Your task to perform on an android device: turn off data saver in the chrome app Image 0: 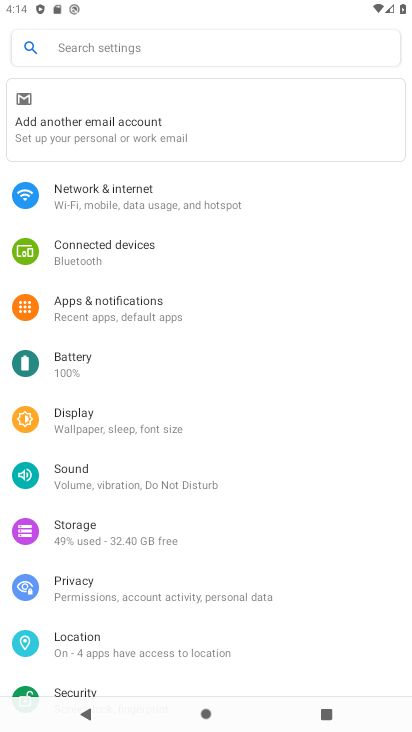
Step 0: press home button
Your task to perform on an android device: turn off data saver in the chrome app Image 1: 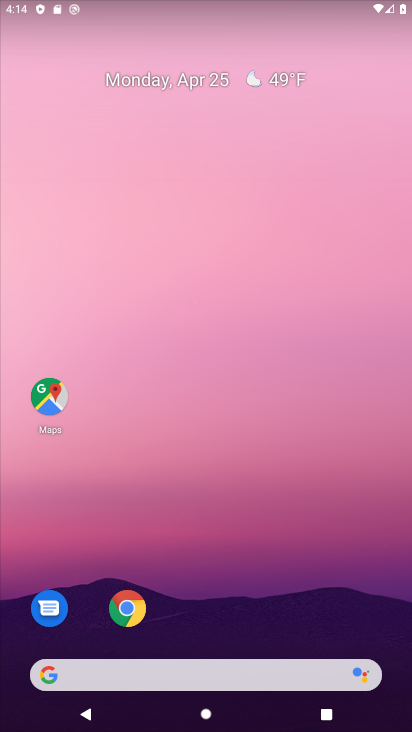
Step 1: click (134, 610)
Your task to perform on an android device: turn off data saver in the chrome app Image 2: 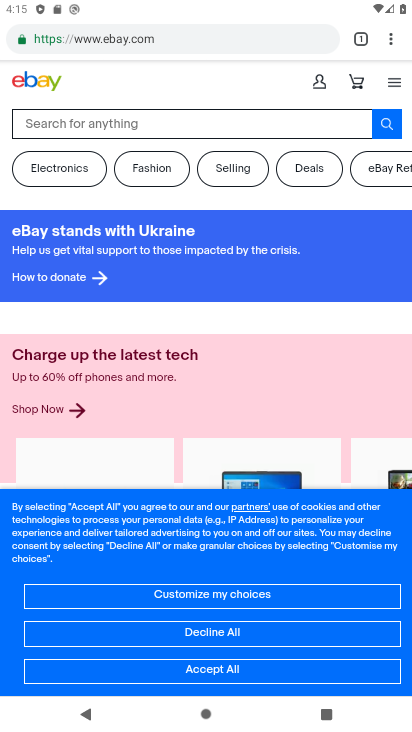
Step 2: click (394, 40)
Your task to perform on an android device: turn off data saver in the chrome app Image 3: 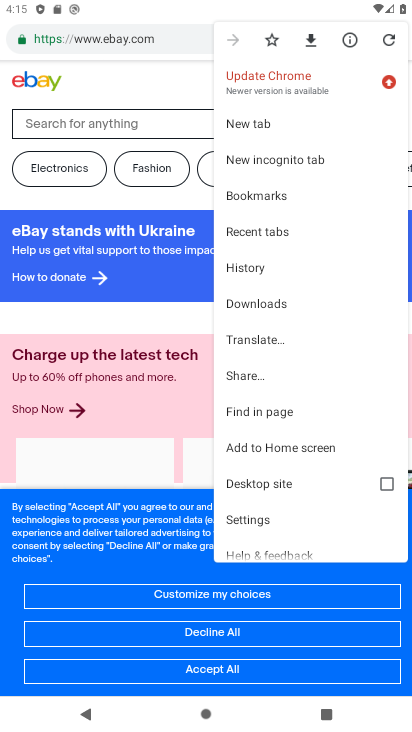
Step 3: click (268, 521)
Your task to perform on an android device: turn off data saver in the chrome app Image 4: 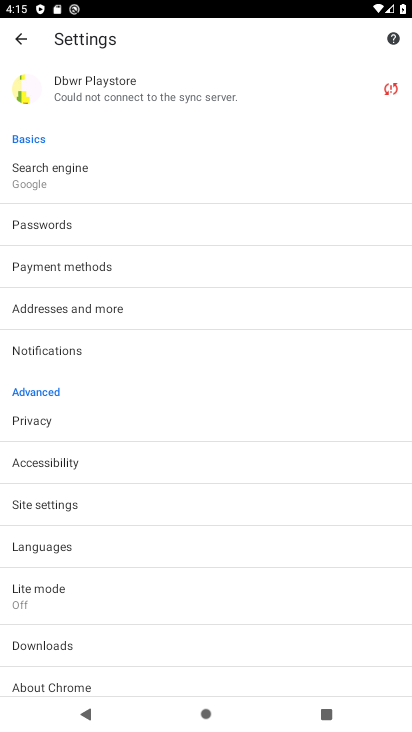
Step 4: click (200, 605)
Your task to perform on an android device: turn off data saver in the chrome app Image 5: 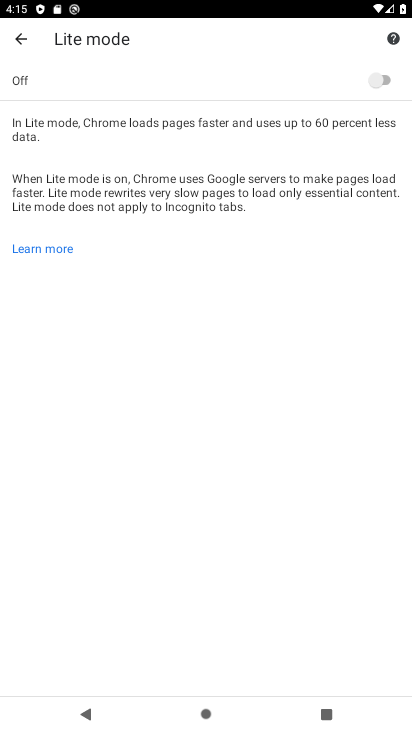
Step 5: task complete